Your task to perform on an android device: Search for good Korean restaurants Image 0: 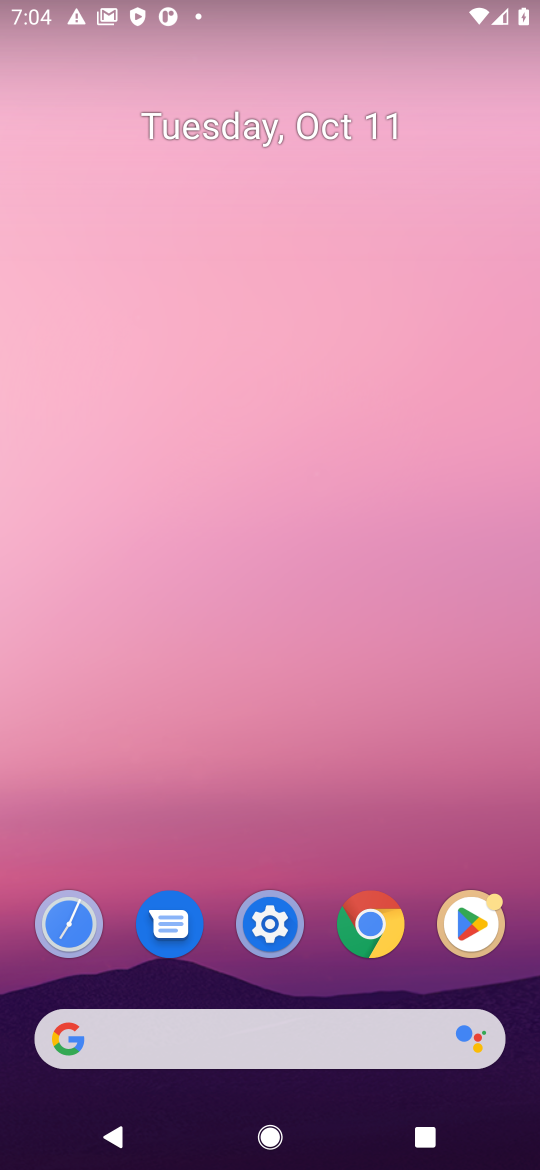
Step 0: click (261, 1040)
Your task to perform on an android device: Search for good Korean restaurants Image 1: 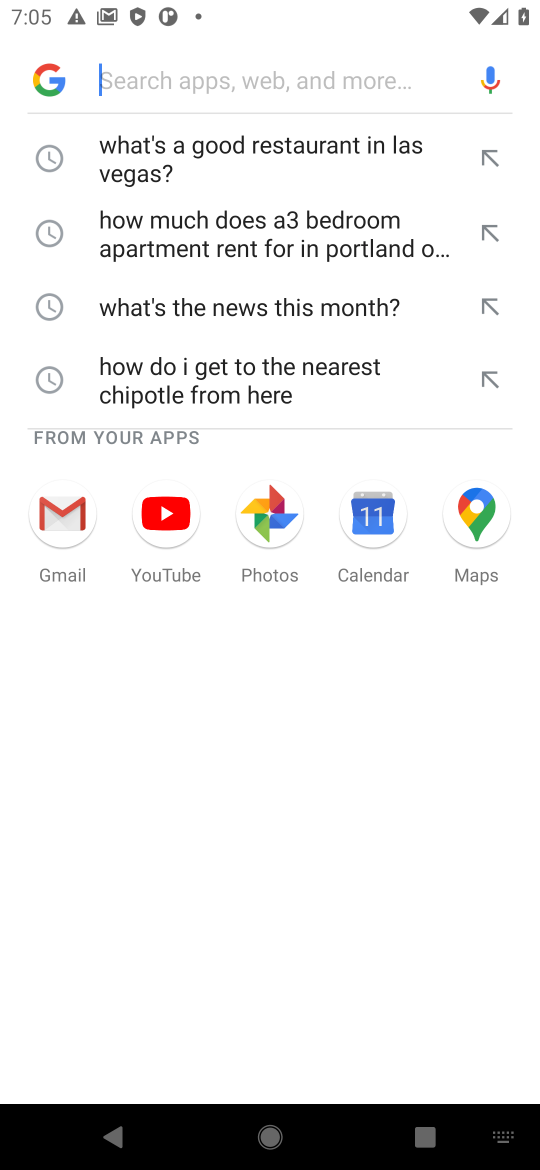
Step 1: type "good Korean restaurants"
Your task to perform on an android device: Search for good Korean restaurants Image 2: 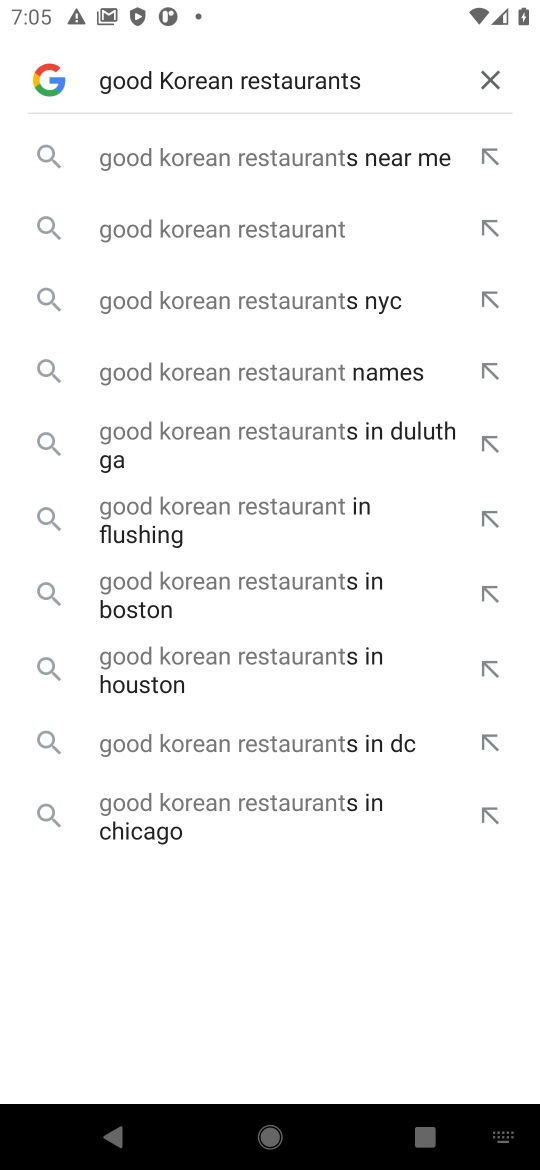
Step 2: press enter
Your task to perform on an android device: Search for good Korean restaurants Image 3: 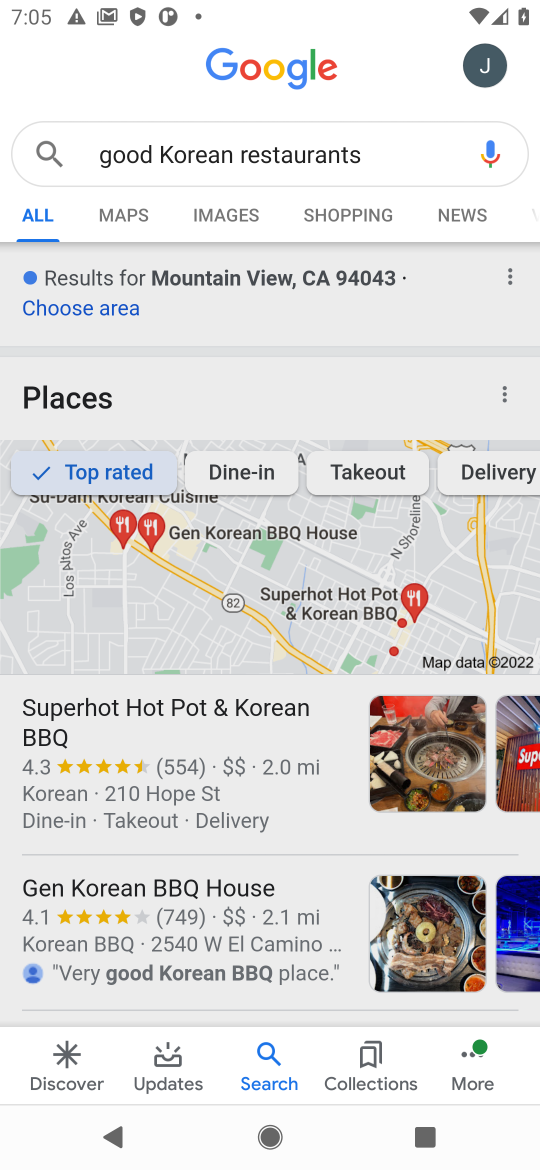
Step 3: drag from (283, 871) to (297, 582)
Your task to perform on an android device: Search for good Korean restaurants Image 4: 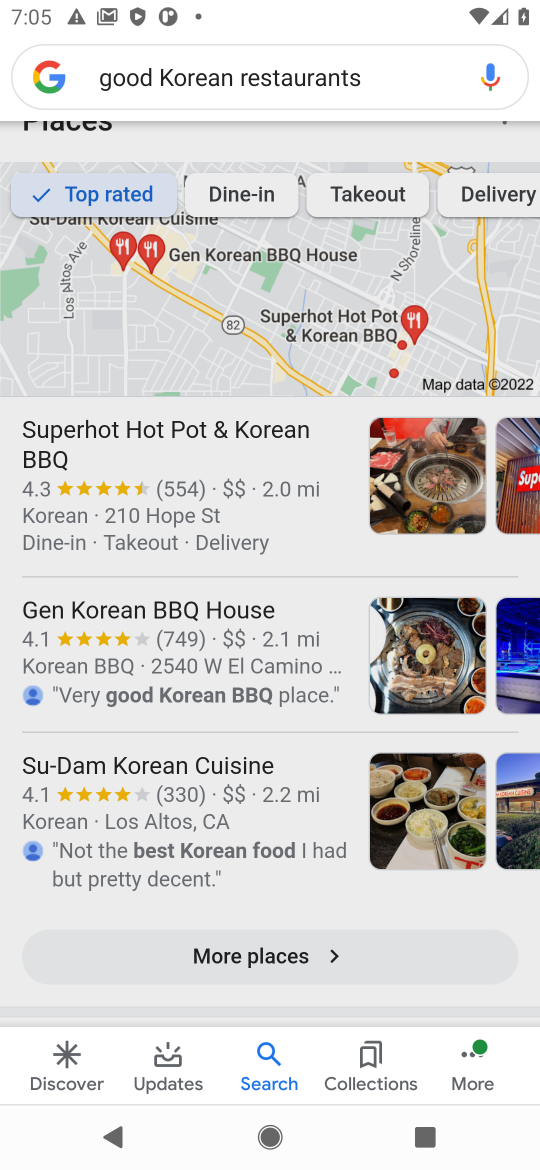
Step 4: drag from (266, 828) to (268, 571)
Your task to perform on an android device: Search for good Korean restaurants Image 5: 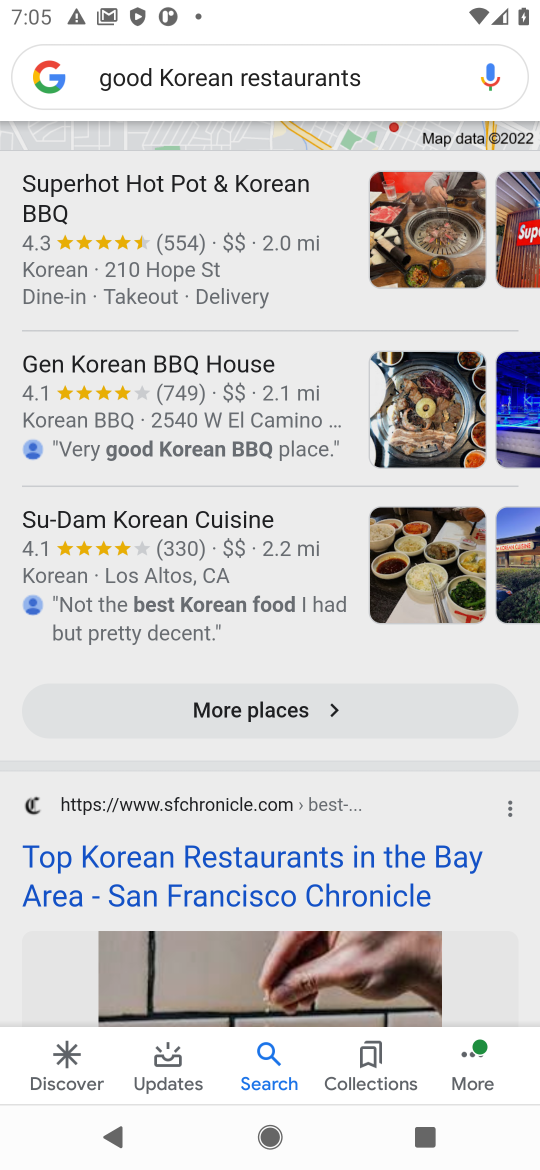
Step 5: click (256, 717)
Your task to perform on an android device: Search for good Korean restaurants Image 6: 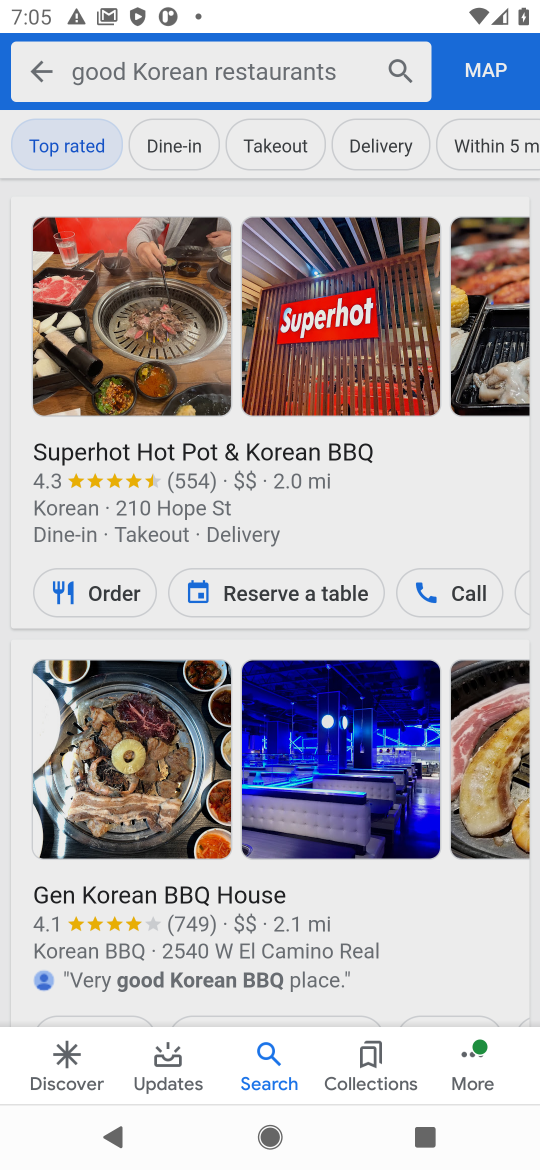
Step 6: task complete